Your task to perform on an android device: toggle improve location accuracy Image 0: 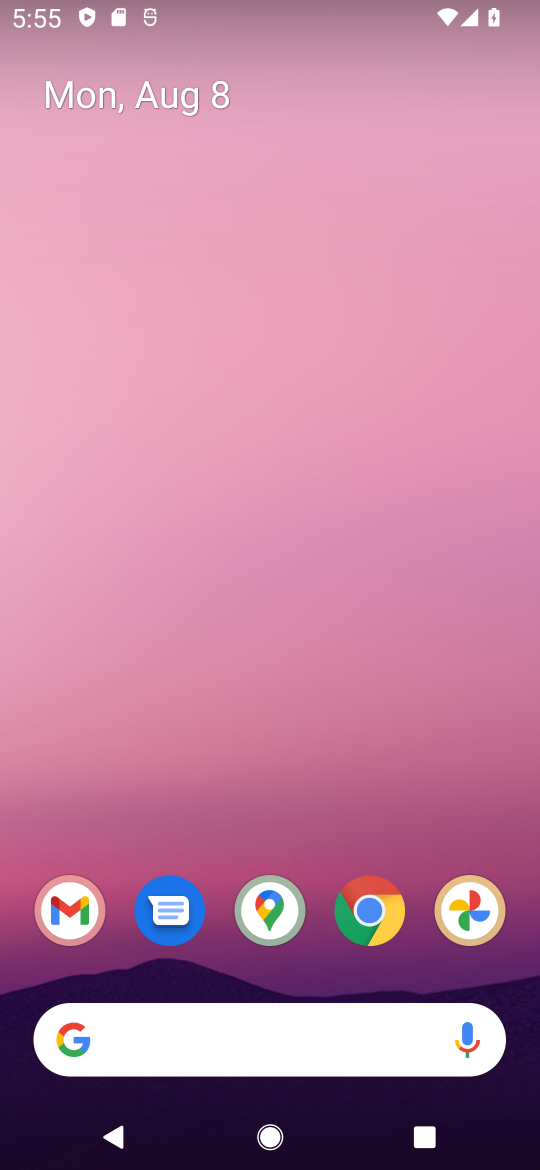
Step 0: drag from (251, 1039) to (187, 227)
Your task to perform on an android device: toggle improve location accuracy Image 1: 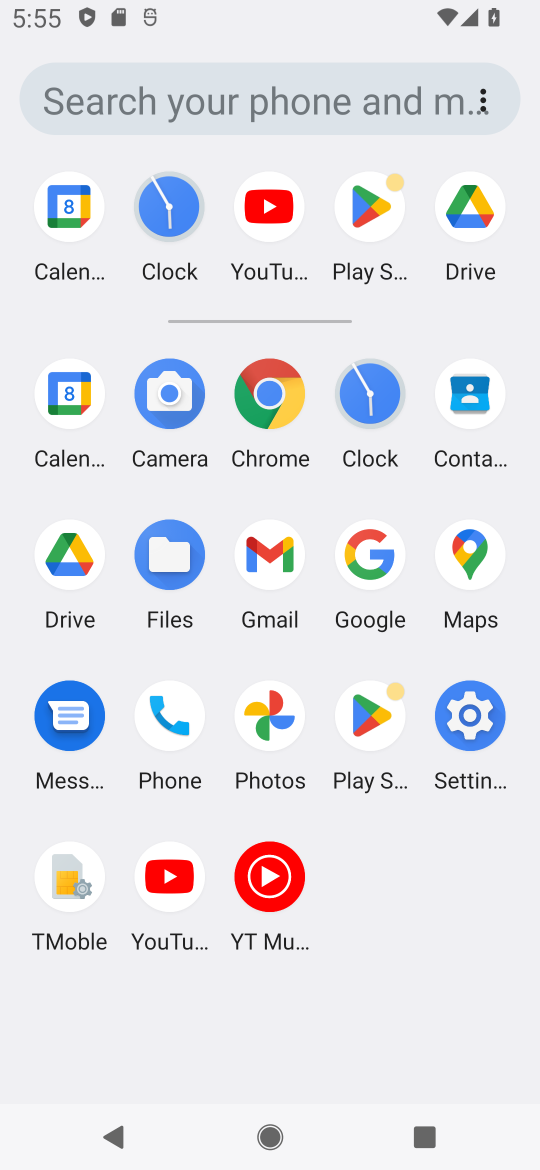
Step 1: click (470, 718)
Your task to perform on an android device: toggle improve location accuracy Image 2: 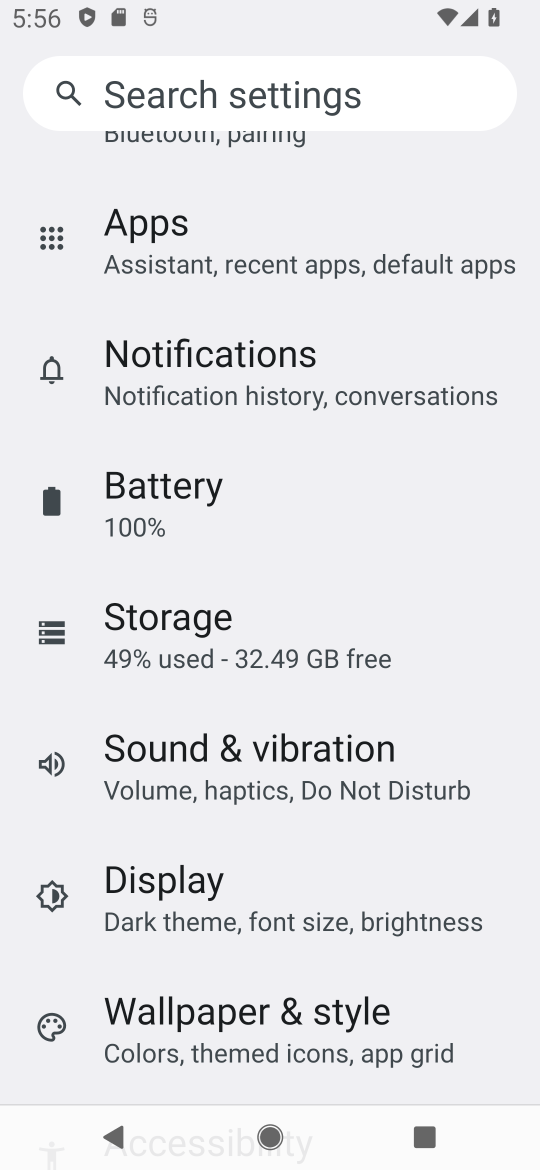
Step 2: drag from (308, 855) to (377, 684)
Your task to perform on an android device: toggle improve location accuracy Image 3: 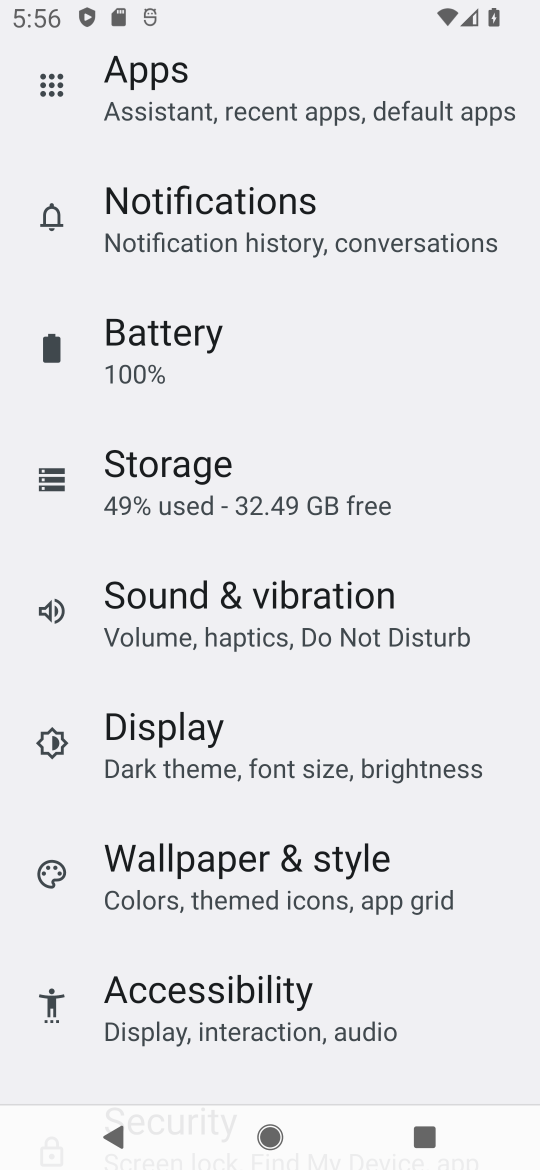
Step 3: drag from (254, 822) to (303, 674)
Your task to perform on an android device: toggle improve location accuracy Image 4: 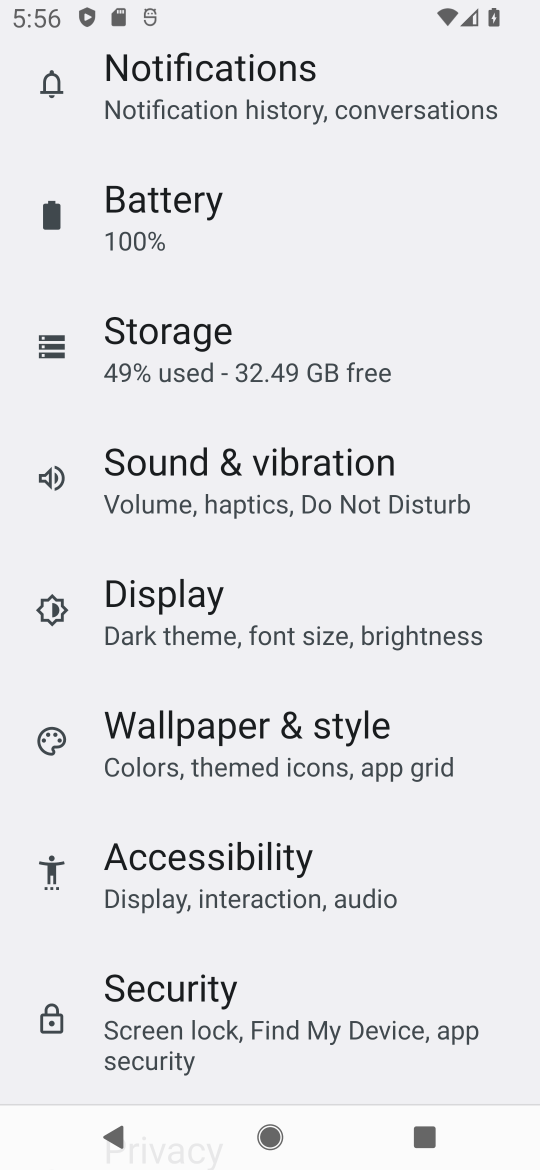
Step 4: drag from (239, 940) to (328, 770)
Your task to perform on an android device: toggle improve location accuracy Image 5: 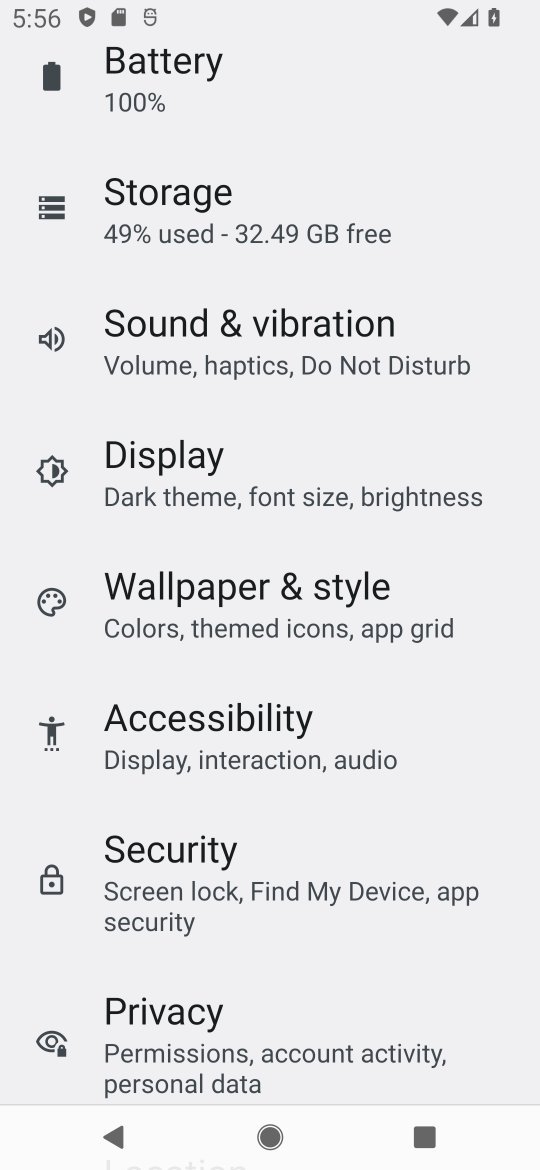
Step 5: drag from (270, 959) to (342, 790)
Your task to perform on an android device: toggle improve location accuracy Image 6: 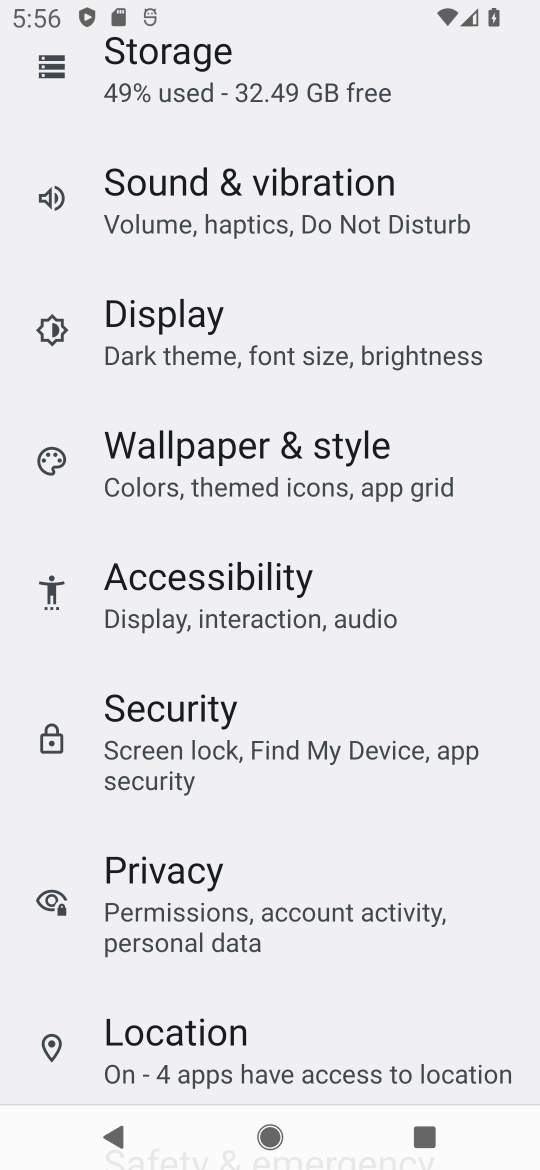
Step 6: drag from (271, 975) to (421, 766)
Your task to perform on an android device: toggle improve location accuracy Image 7: 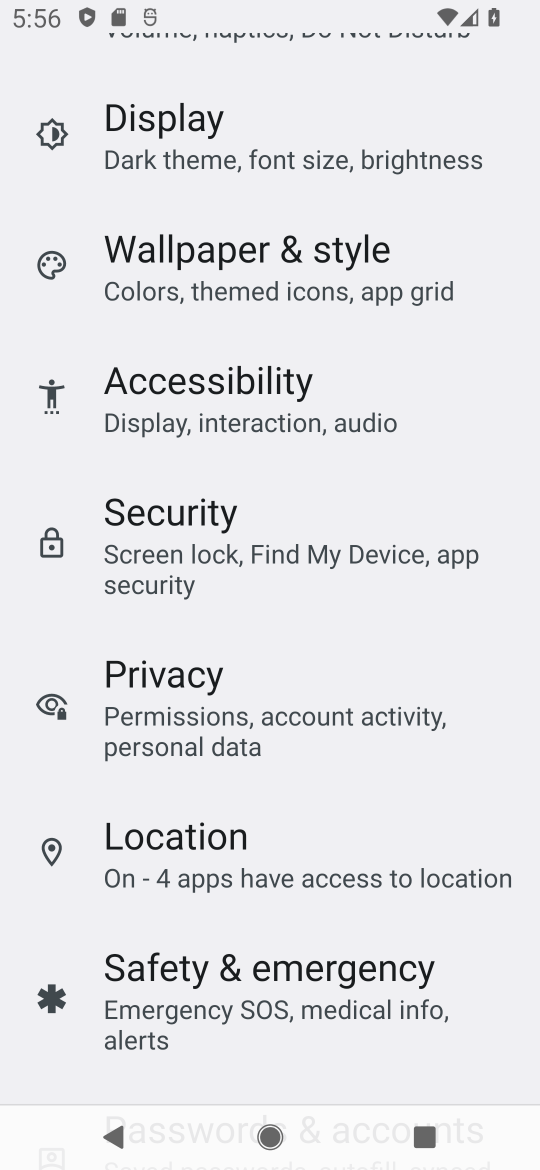
Step 7: click (244, 875)
Your task to perform on an android device: toggle improve location accuracy Image 8: 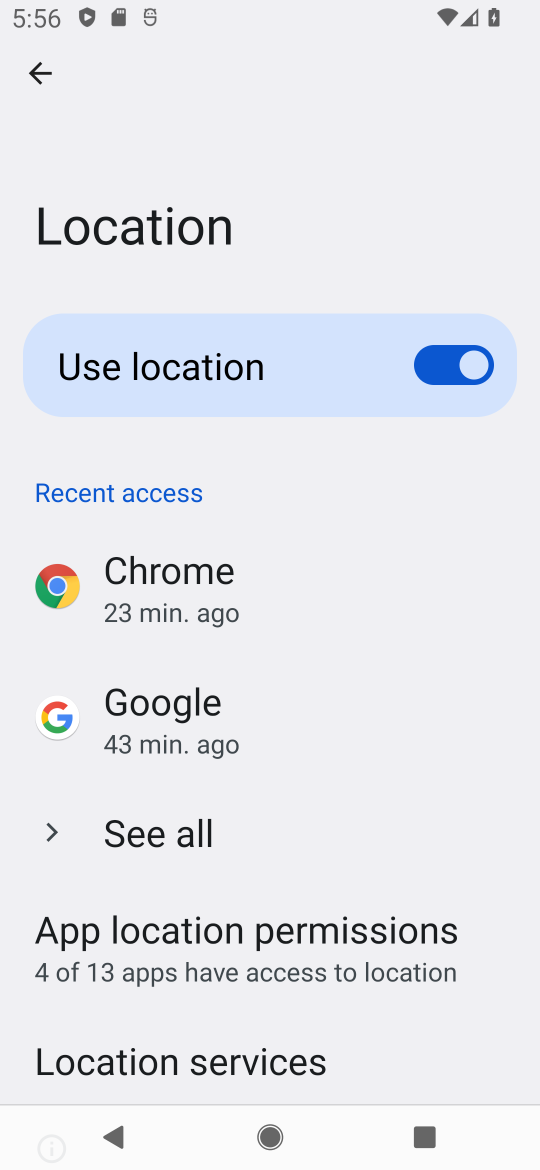
Step 8: drag from (190, 1017) to (308, 634)
Your task to perform on an android device: toggle improve location accuracy Image 9: 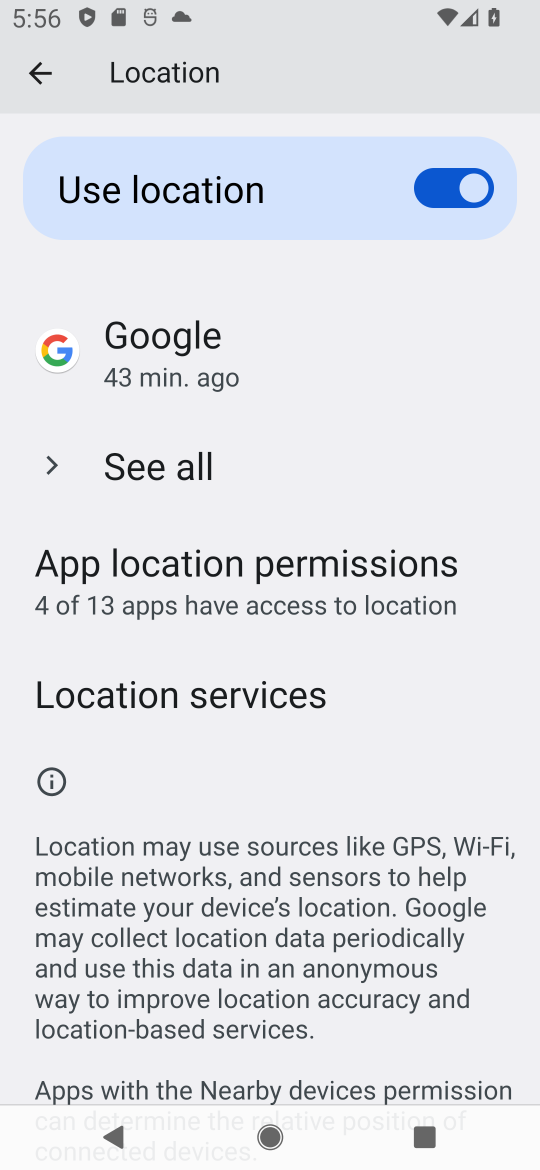
Step 9: click (278, 697)
Your task to perform on an android device: toggle improve location accuracy Image 10: 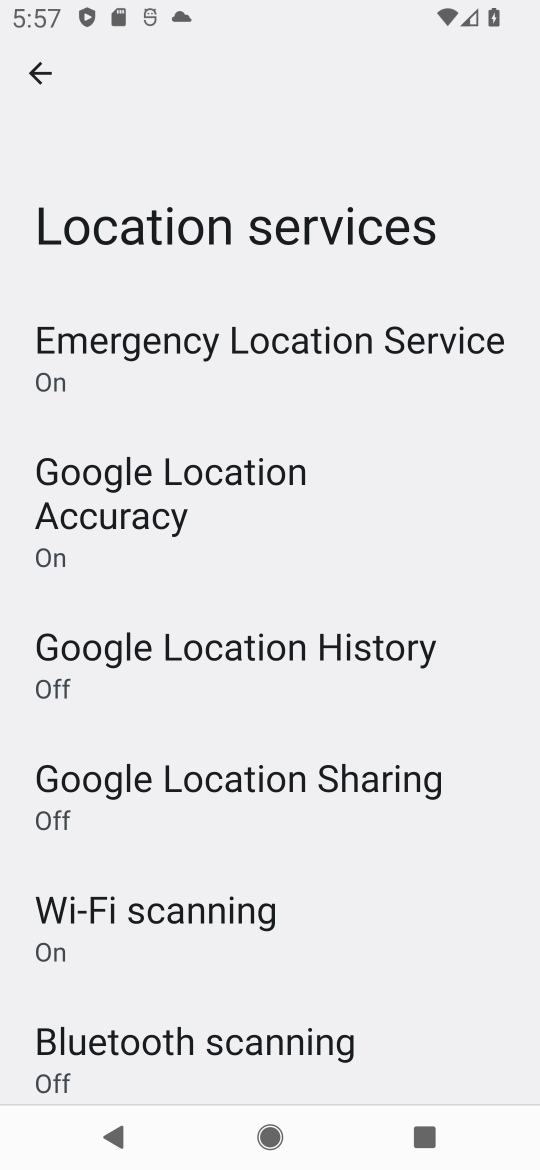
Step 10: click (202, 496)
Your task to perform on an android device: toggle improve location accuracy Image 11: 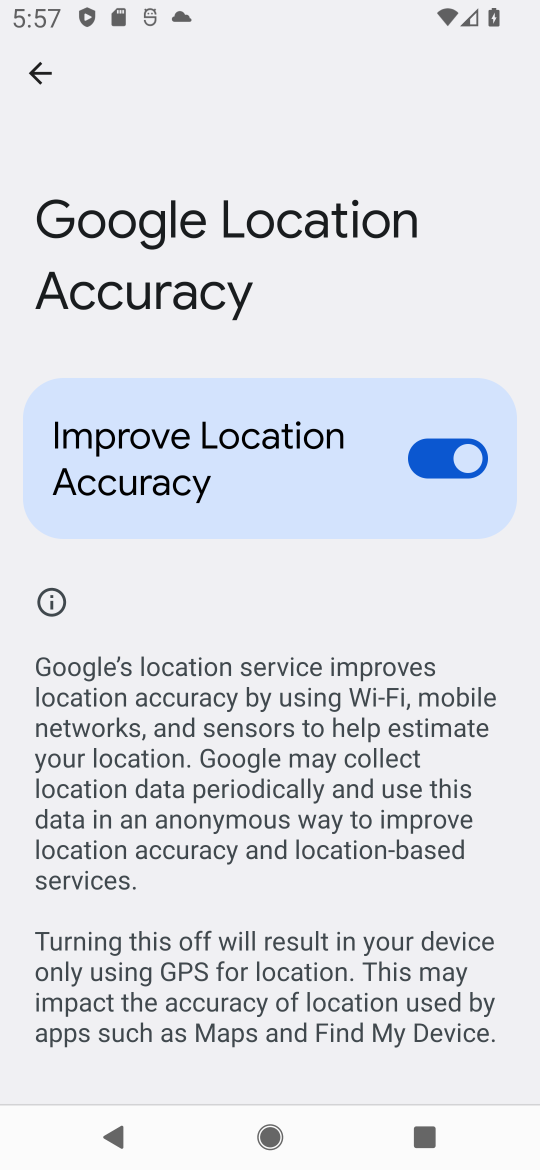
Step 11: click (430, 467)
Your task to perform on an android device: toggle improve location accuracy Image 12: 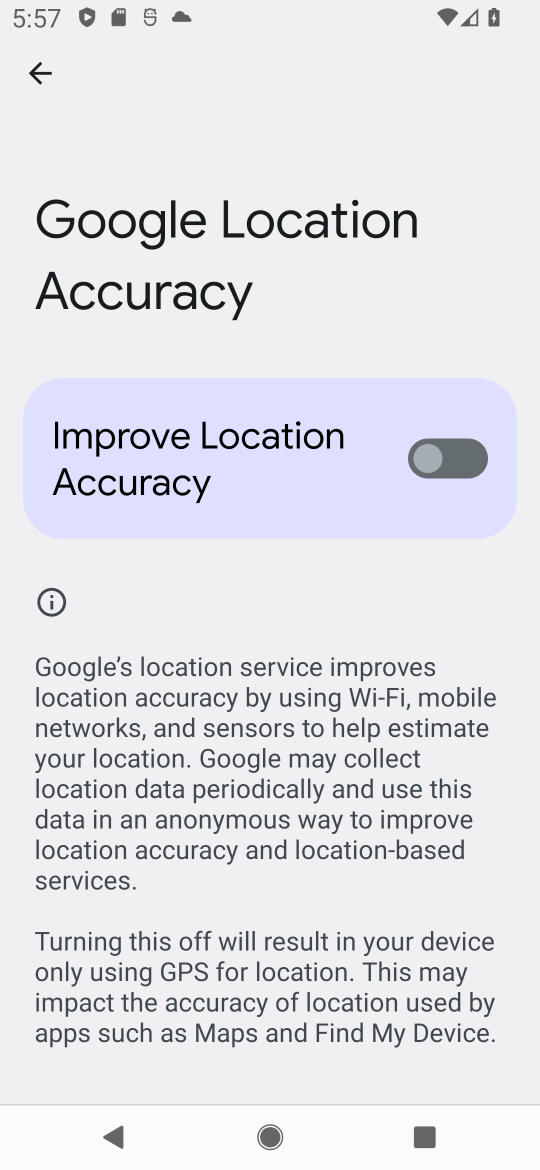
Step 12: task complete